Your task to perform on an android device: turn off wifi Image 0: 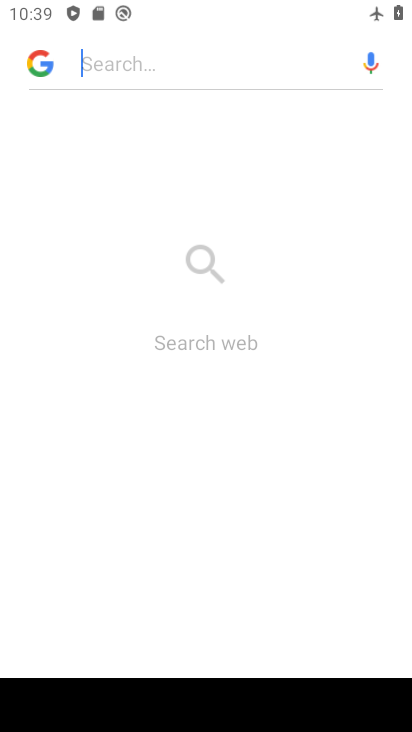
Step 0: press home button
Your task to perform on an android device: turn off wifi Image 1: 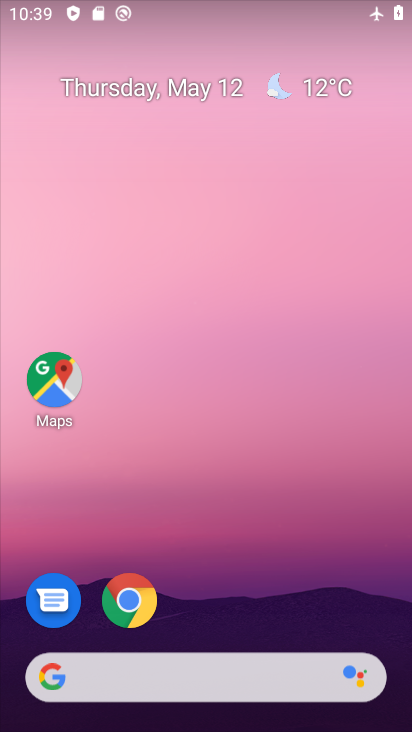
Step 1: task complete